Your task to perform on an android device: move a message to another label in the gmail app Image 0: 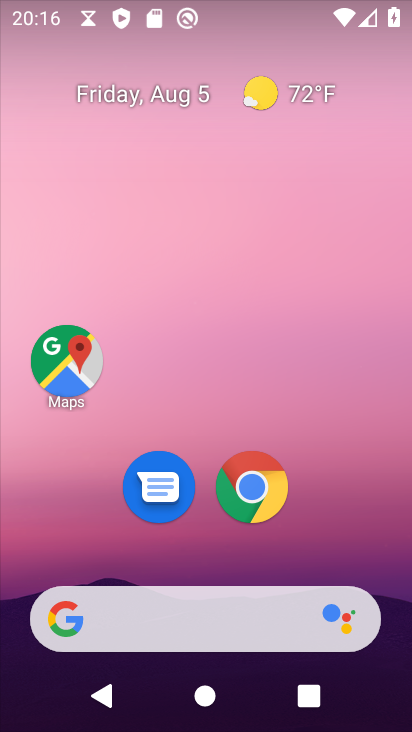
Step 0: press home button
Your task to perform on an android device: move a message to another label in the gmail app Image 1: 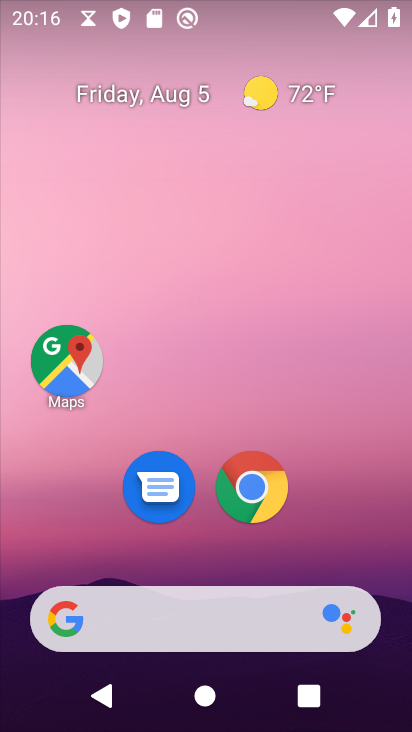
Step 1: drag from (189, 611) to (366, 17)
Your task to perform on an android device: move a message to another label in the gmail app Image 2: 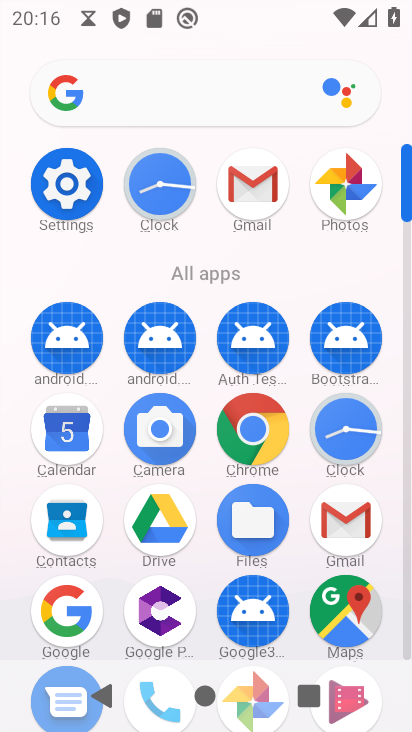
Step 2: click (247, 186)
Your task to perform on an android device: move a message to another label in the gmail app Image 3: 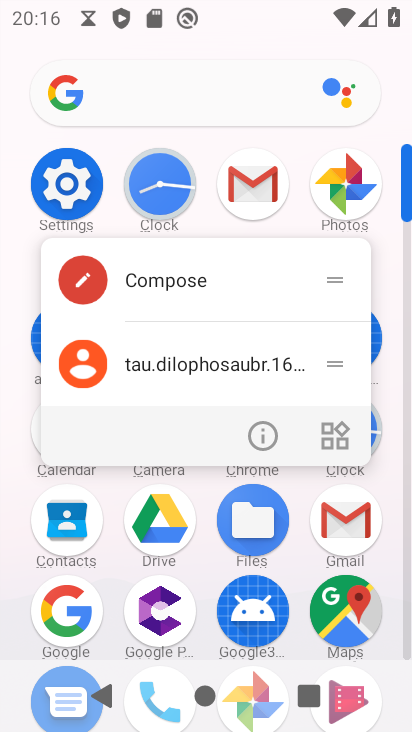
Step 3: click (242, 180)
Your task to perform on an android device: move a message to another label in the gmail app Image 4: 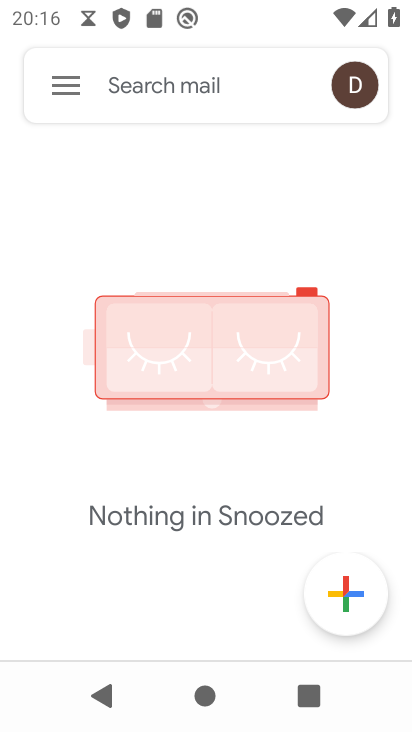
Step 4: click (59, 77)
Your task to perform on an android device: move a message to another label in the gmail app Image 5: 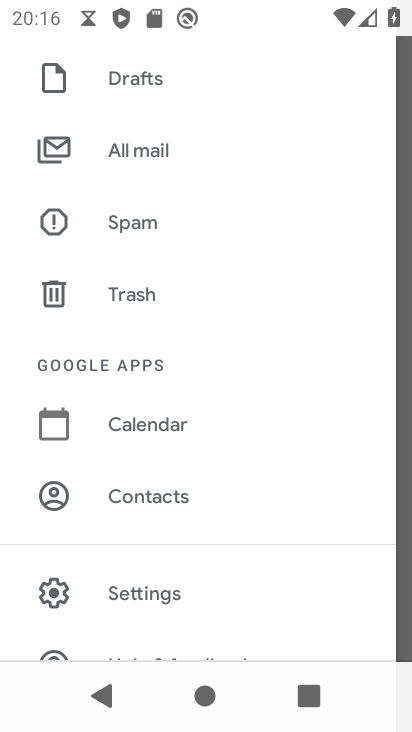
Step 5: click (159, 149)
Your task to perform on an android device: move a message to another label in the gmail app Image 6: 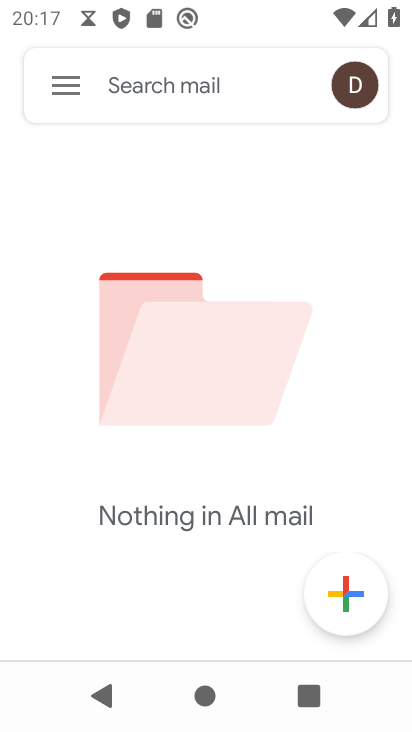
Step 6: task complete